Your task to perform on an android device: move a message to another label in the gmail app Image 0: 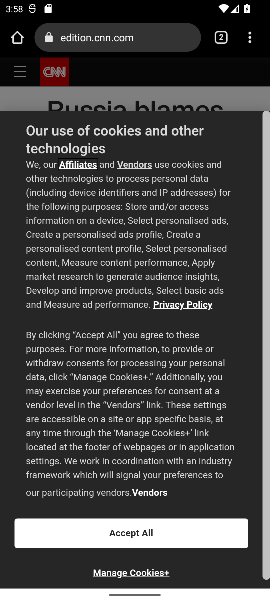
Step 0: press home button
Your task to perform on an android device: move a message to another label in the gmail app Image 1: 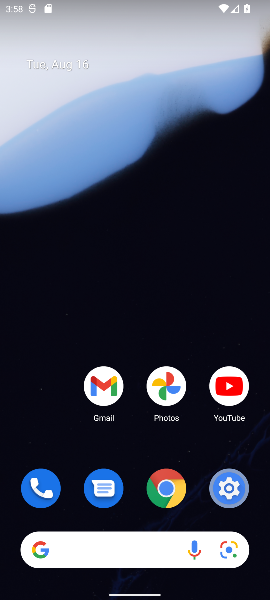
Step 1: drag from (187, 301) to (188, 99)
Your task to perform on an android device: move a message to another label in the gmail app Image 2: 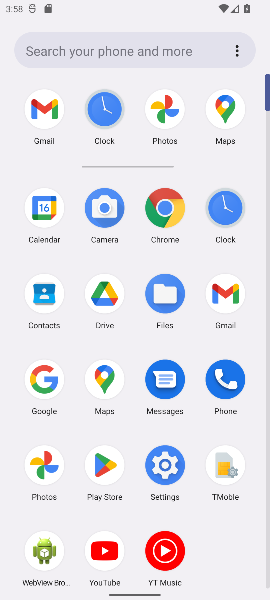
Step 2: click (235, 289)
Your task to perform on an android device: move a message to another label in the gmail app Image 3: 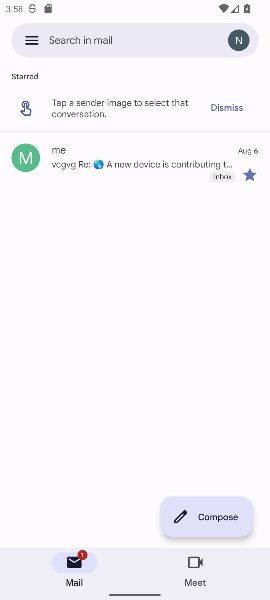
Step 3: task complete